Your task to perform on an android device: Open battery settings Image 0: 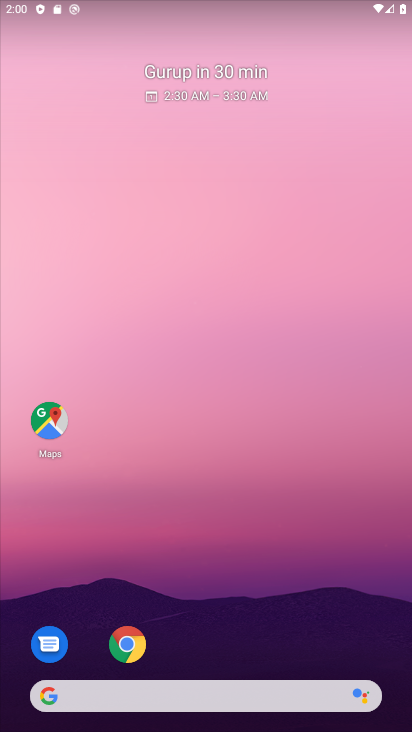
Step 0: drag from (263, 637) to (183, 144)
Your task to perform on an android device: Open battery settings Image 1: 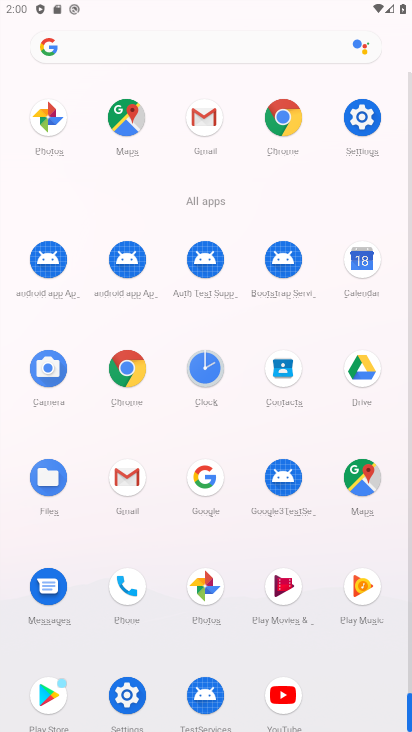
Step 1: click (366, 114)
Your task to perform on an android device: Open battery settings Image 2: 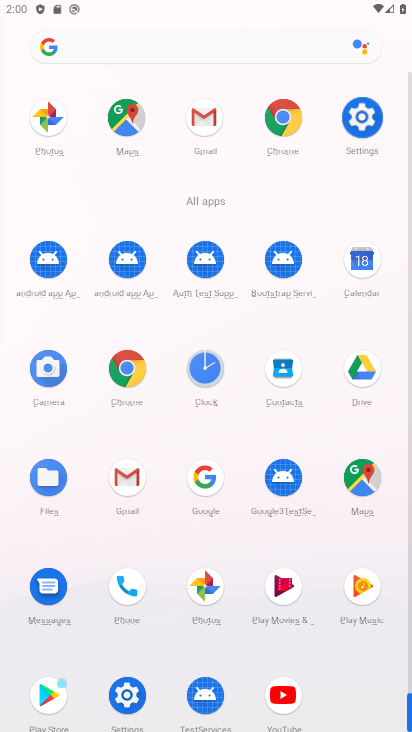
Step 2: click (368, 115)
Your task to perform on an android device: Open battery settings Image 3: 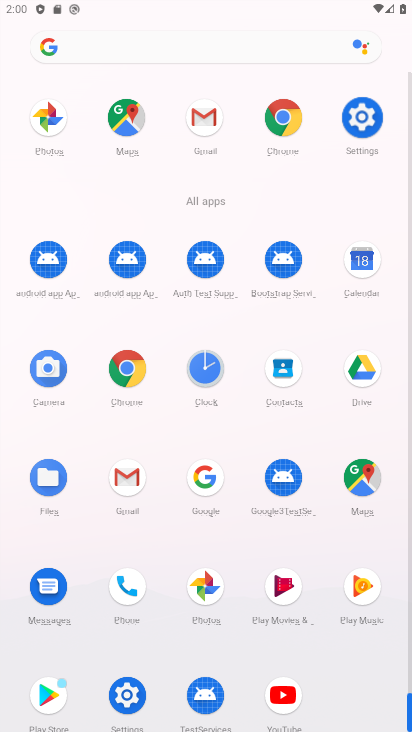
Step 3: click (369, 117)
Your task to perform on an android device: Open battery settings Image 4: 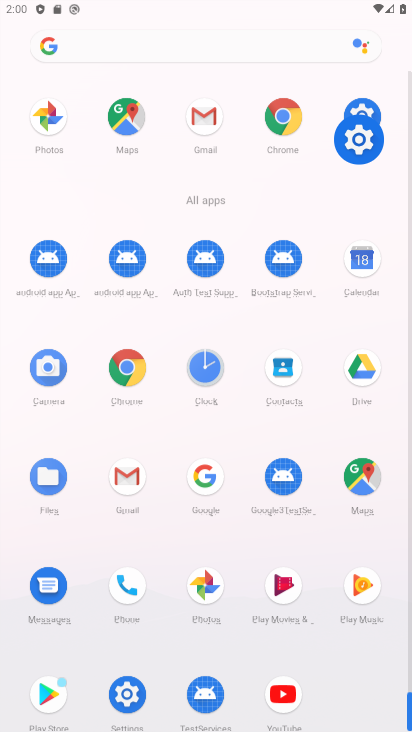
Step 4: click (368, 118)
Your task to perform on an android device: Open battery settings Image 5: 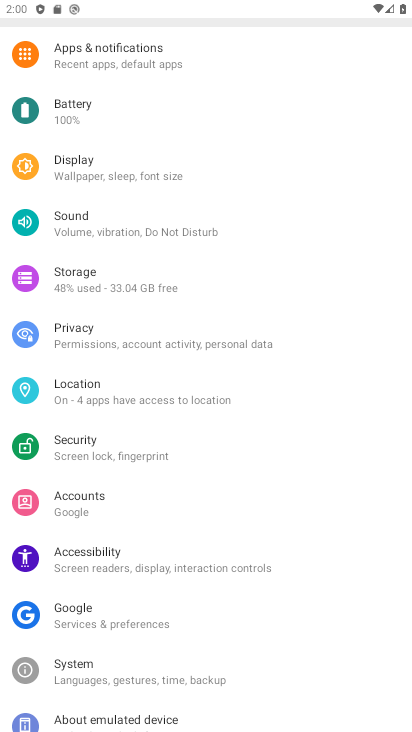
Step 5: click (368, 118)
Your task to perform on an android device: Open battery settings Image 6: 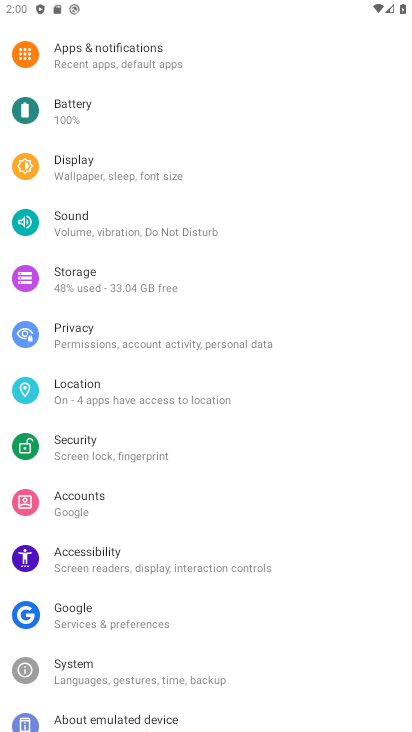
Step 6: click (367, 119)
Your task to perform on an android device: Open battery settings Image 7: 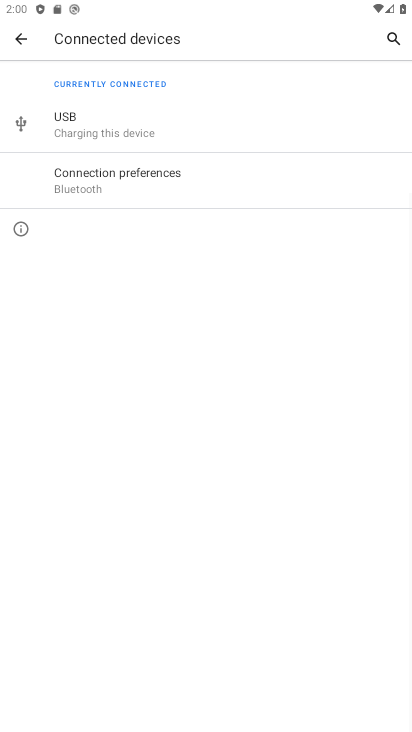
Step 7: click (21, 37)
Your task to perform on an android device: Open battery settings Image 8: 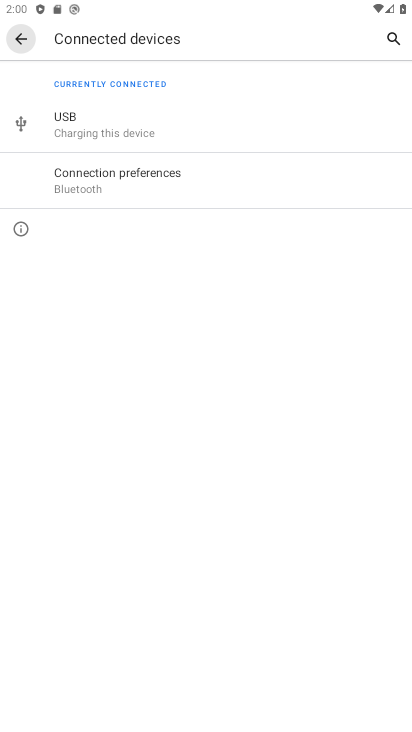
Step 8: click (21, 37)
Your task to perform on an android device: Open battery settings Image 9: 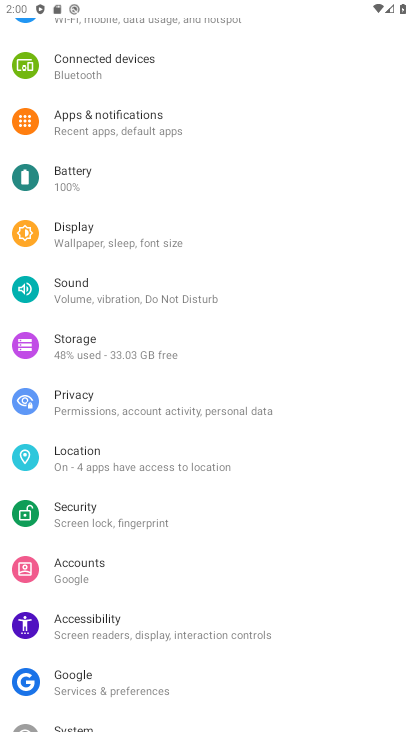
Step 9: click (60, 173)
Your task to perform on an android device: Open battery settings Image 10: 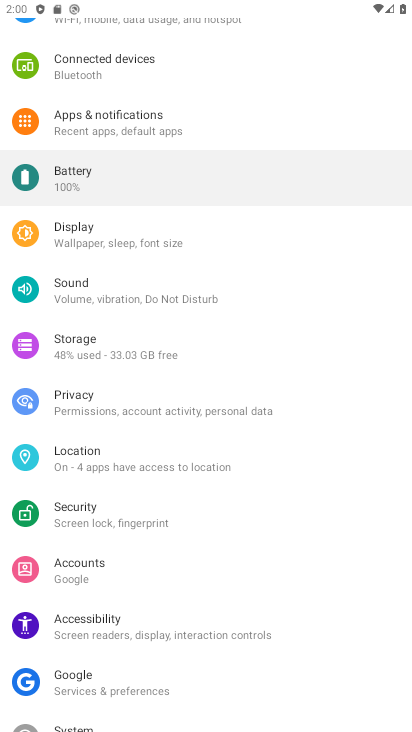
Step 10: click (66, 180)
Your task to perform on an android device: Open battery settings Image 11: 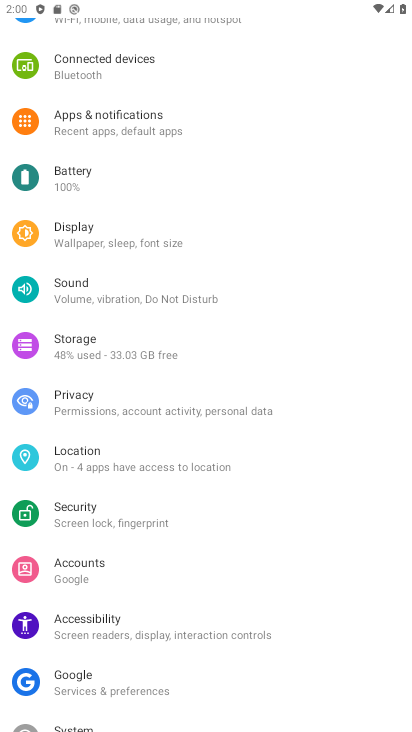
Step 11: click (66, 185)
Your task to perform on an android device: Open battery settings Image 12: 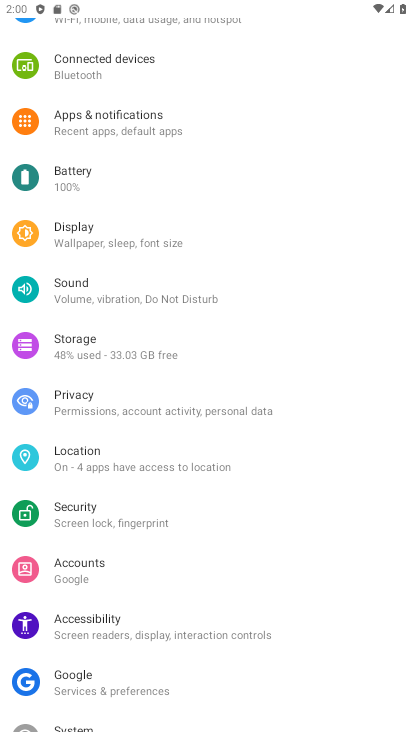
Step 12: click (62, 192)
Your task to perform on an android device: Open battery settings Image 13: 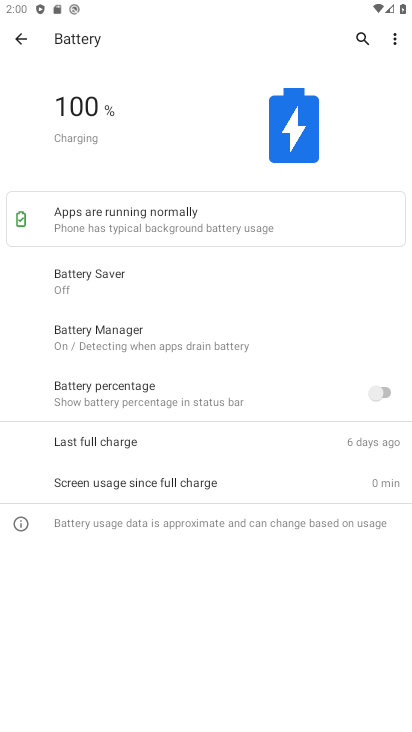
Step 13: task complete